Your task to perform on an android device: check storage Image 0: 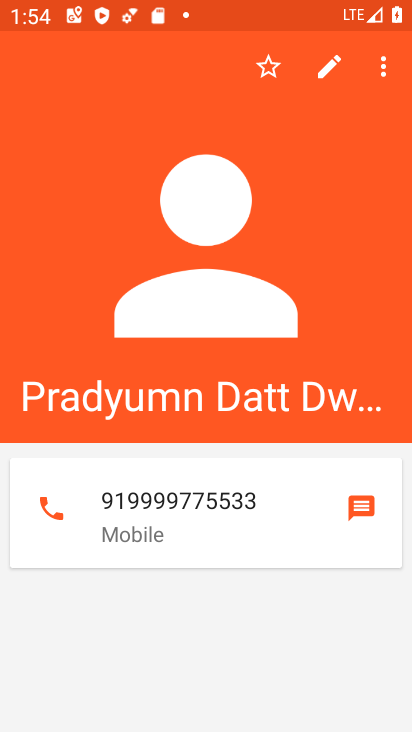
Step 0: press home button
Your task to perform on an android device: check storage Image 1: 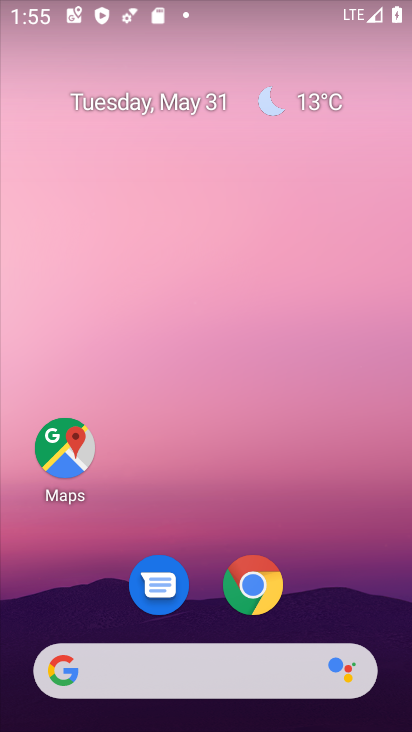
Step 1: drag from (247, 480) to (277, 60)
Your task to perform on an android device: check storage Image 2: 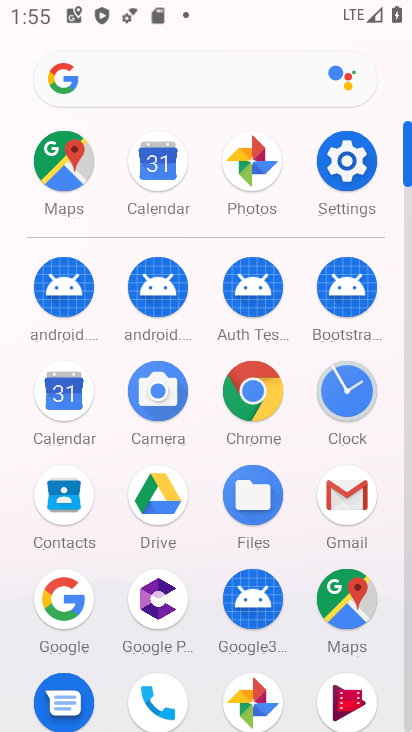
Step 2: click (351, 164)
Your task to perform on an android device: check storage Image 3: 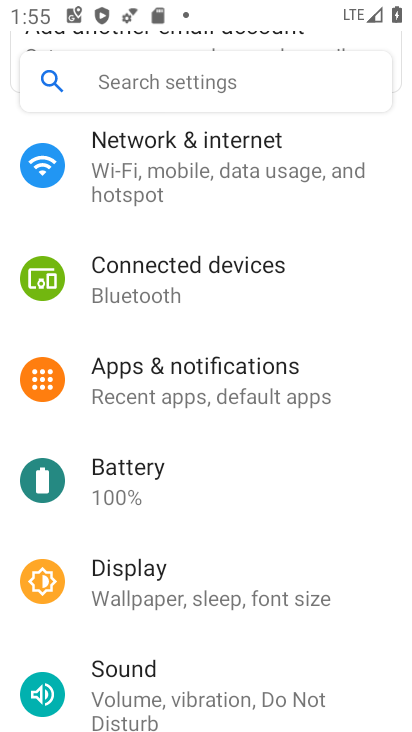
Step 3: drag from (225, 522) to (250, 125)
Your task to perform on an android device: check storage Image 4: 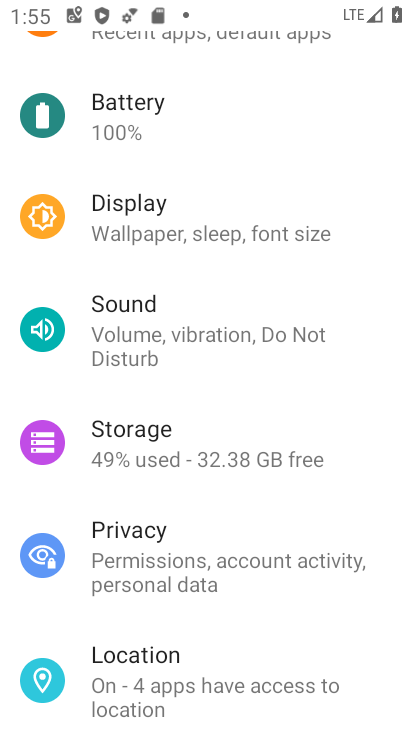
Step 4: click (209, 448)
Your task to perform on an android device: check storage Image 5: 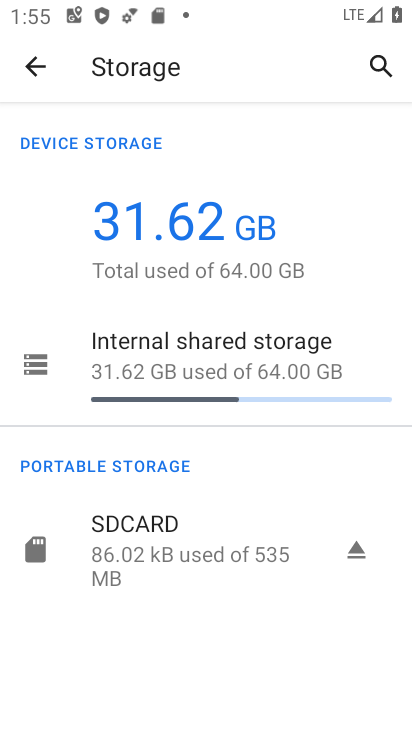
Step 5: task complete